Your task to perform on an android device: turn on priority inbox in the gmail app Image 0: 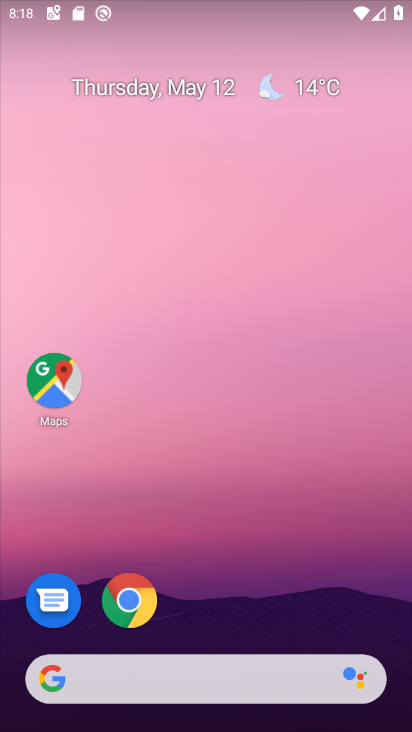
Step 0: drag from (332, 632) to (162, 60)
Your task to perform on an android device: turn on priority inbox in the gmail app Image 1: 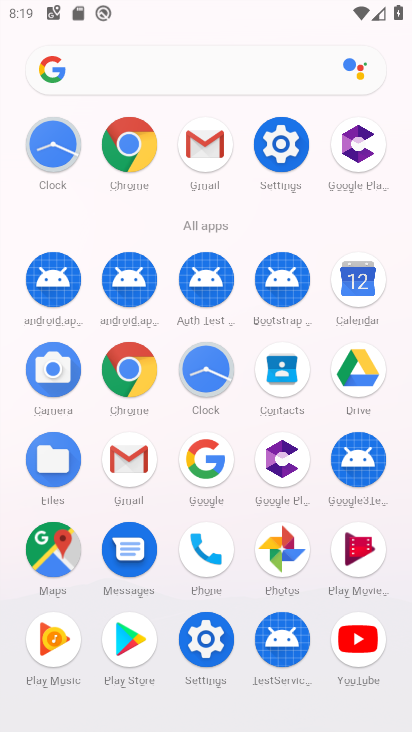
Step 1: click (138, 460)
Your task to perform on an android device: turn on priority inbox in the gmail app Image 2: 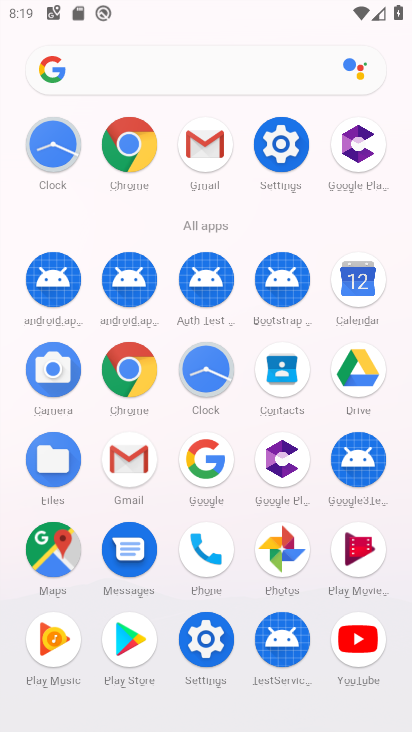
Step 2: click (138, 460)
Your task to perform on an android device: turn on priority inbox in the gmail app Image 3: 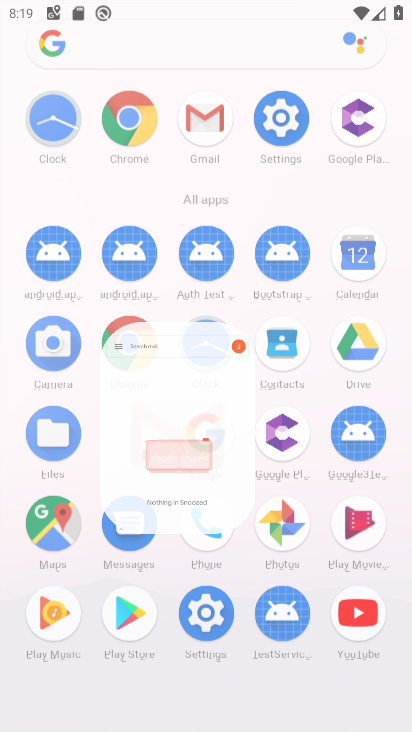
Step 3: click (138, 460)
Your task to perform on an android device: turn on priority inbox in the gmail app Image 4: 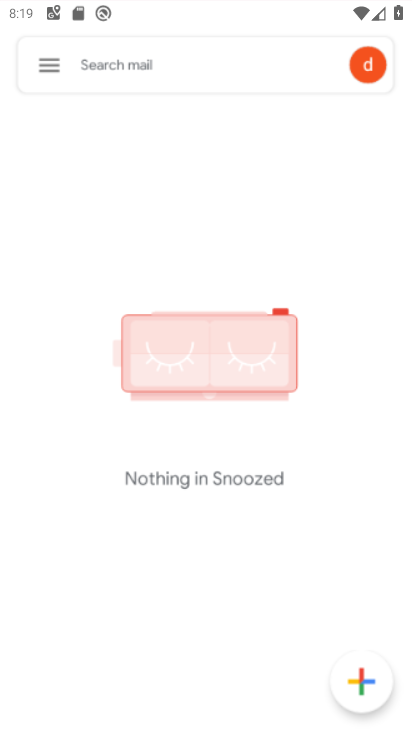
Step 4: click (138, 460)
Your task to perform on an android device: turn on priority inbox in the gmail app Image 5: 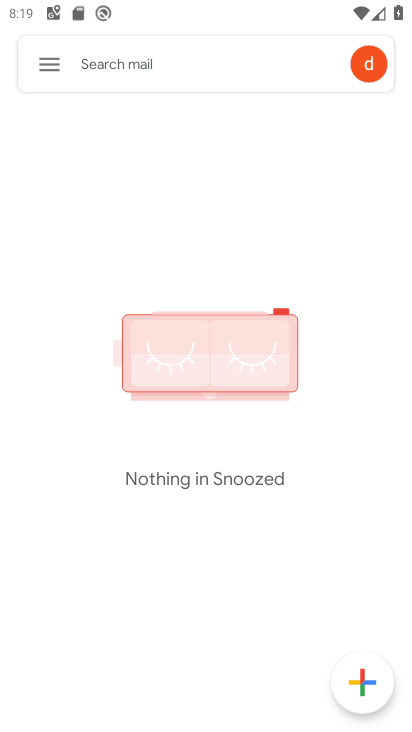
Step 5: press home button
Your task to perform on an android device: turn on priority inbox in the gmail app Image 6: 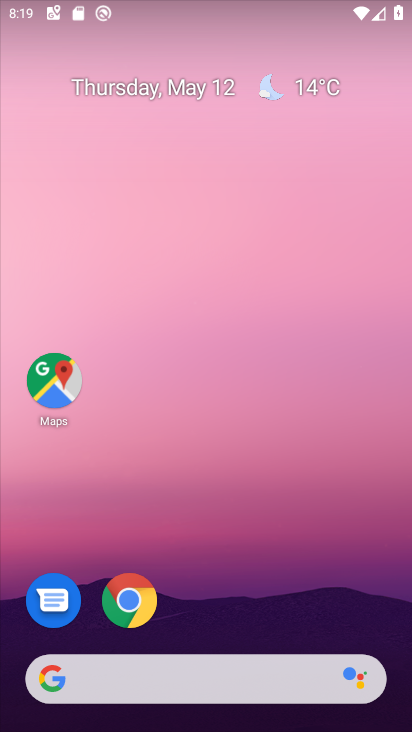
Step 6: drag from (284, 663) to (122, 209)
Your task to perform on an android device: turn on priority inbox in the gmail app Image 7: 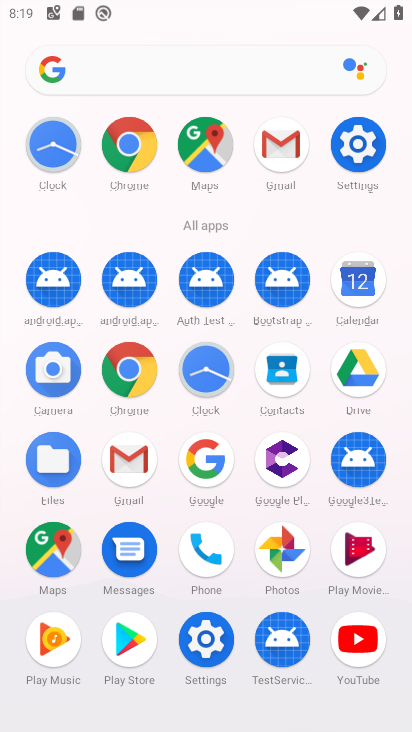
Step 7: click (275, 145)
Your task to perform on an android device: turn on priority inbox in the gmail app Image 8: 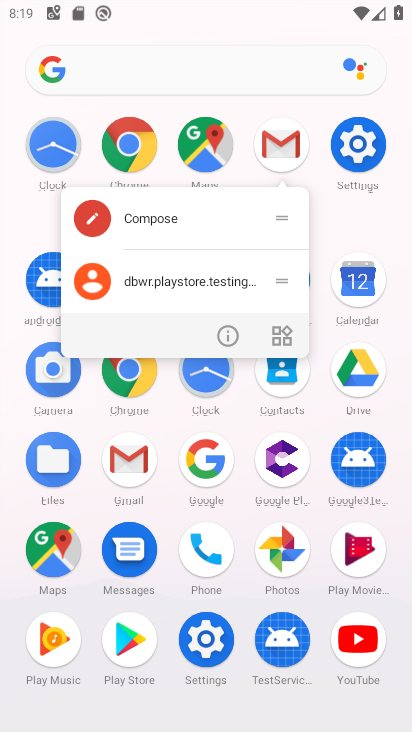
Step 8: click (282, 143)
Your task to perform on an android device: turn on priority inbox in the gmail app Image 9: 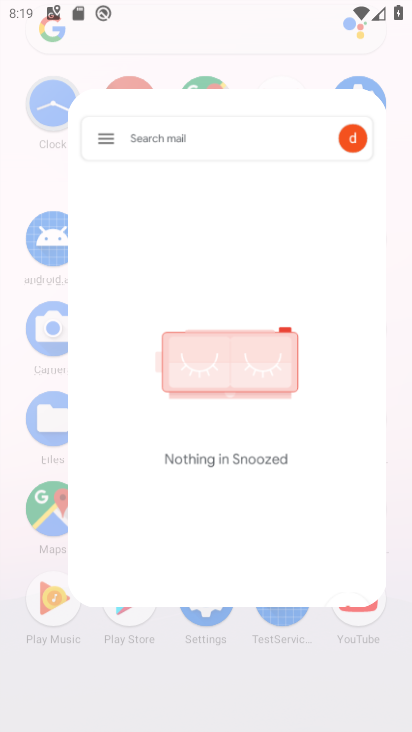
Step 9: click (279, 142)
Your task to perform on an android device: turn on priority inbox in the gmail app Image 10: 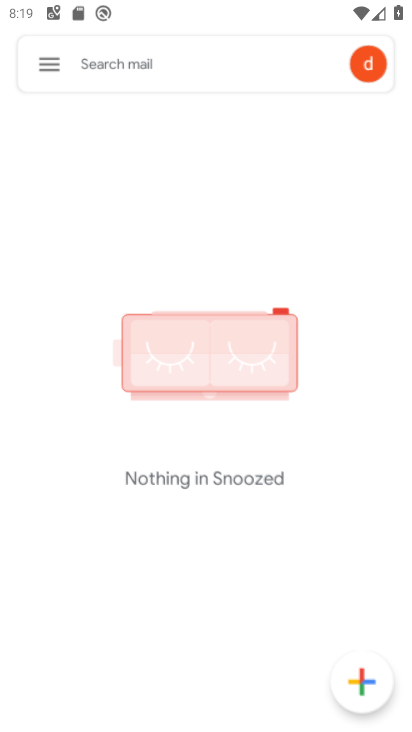
Step 10: click (279, 142)
Your task to perform on an android device: turn on priority inbox in the gmail app Image 11: 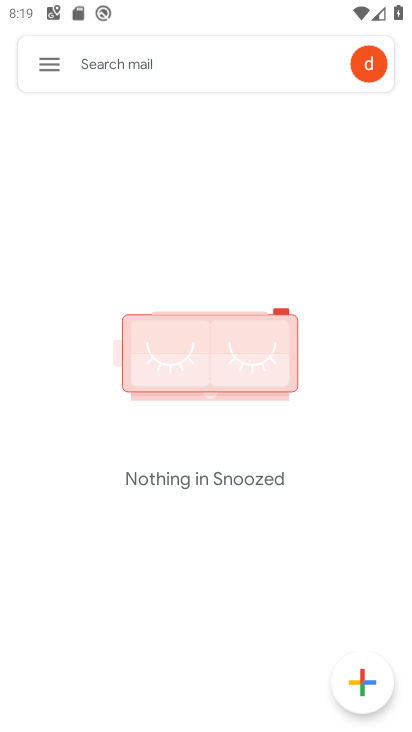
Step 11: click (279, 142)
Your task to perform on an android device: turn on priority inbox in the gmail app Image 12: 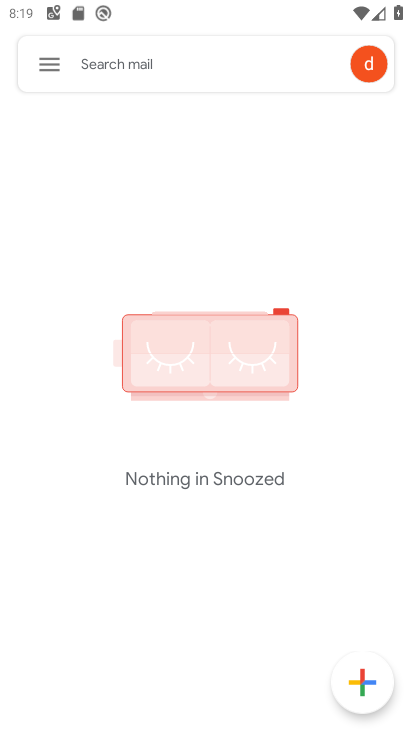
Step 12: click (45, 67)
Your task to perform on an android device: turn on priority inbox in the gmail app Image 13: 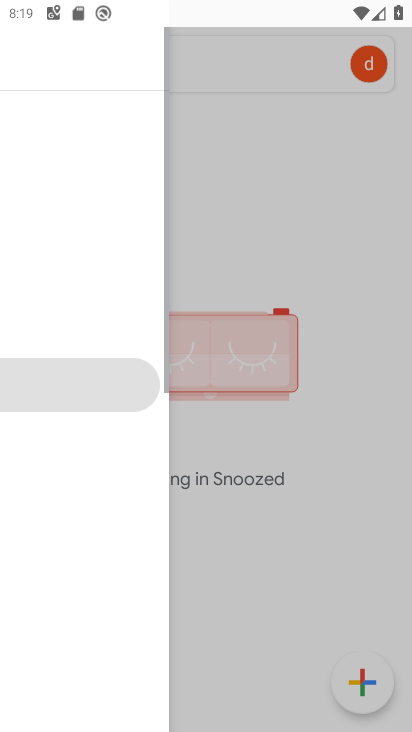
Step 13: click (50, 56)
Your task to perform on an android device: turn on priority inbox in the gmail app Image 14: 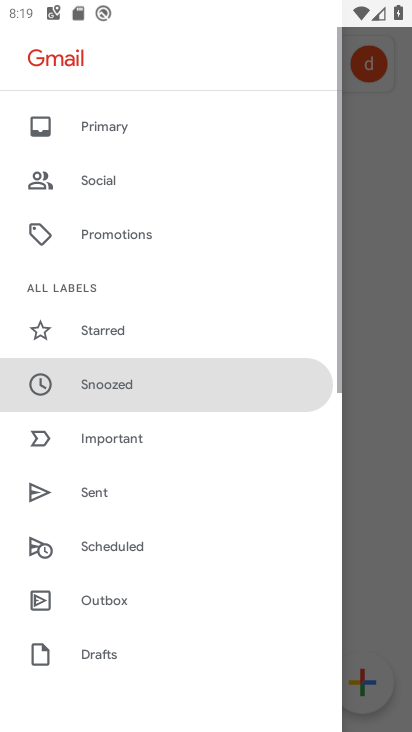
Step 14: drag from (108, 577) to (130, 121)
Your task to perform on an android device: turn on priority inbox in the gmail app Image 15: 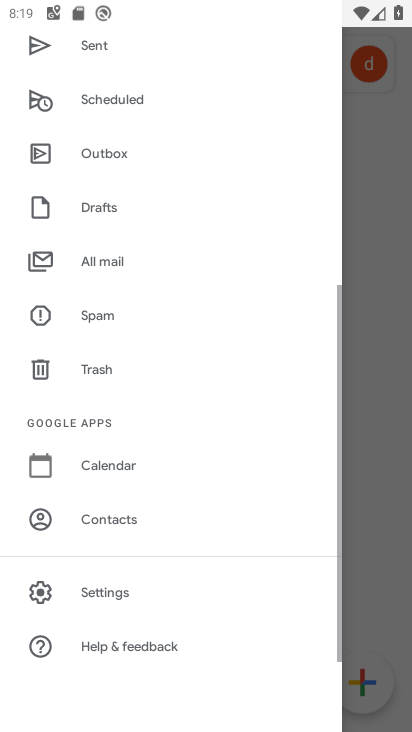
Step 15: drag from (143, 183) to (143, 48)
Your task to perform on an android device: turn on priority inbox in the gmail app Image 16: 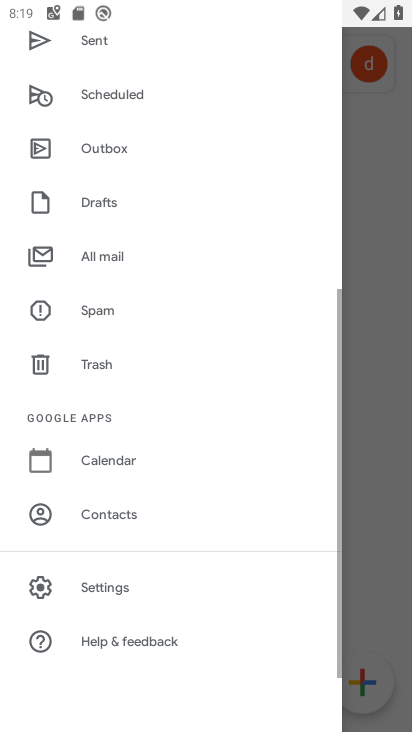
Step 16: click (84, 576)
Your task to perform on an android device: turn on priority inbox in the gmail app Image 17: 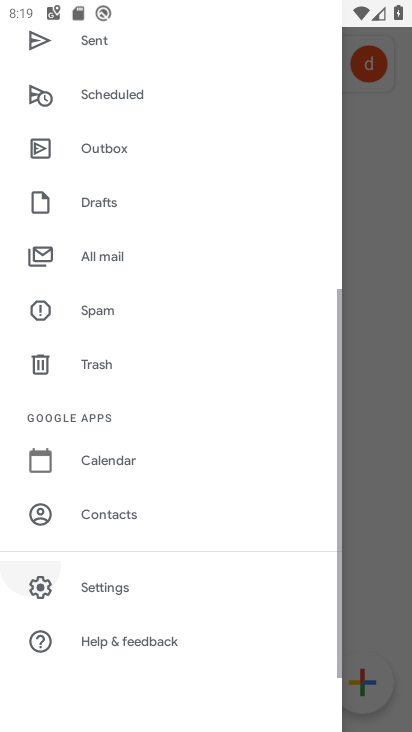
Step 17: click (87, 582)
Your task to perform on an android device: turn on priority inbox in the gmail app Image 18: 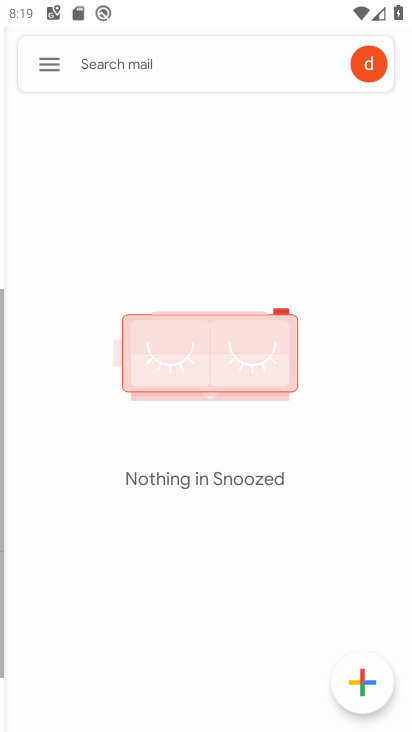
Step 18: click (87, 582)
Your task to perform on an android device: turn on priority inbox in the gmail app Image 19: 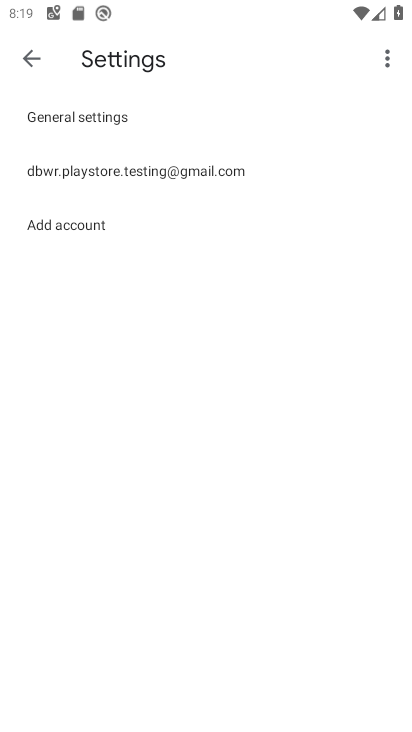
Step 19: click (102, 174)
Your task to perform on an android device: turn on priority inbox in the gmail app Image 20: 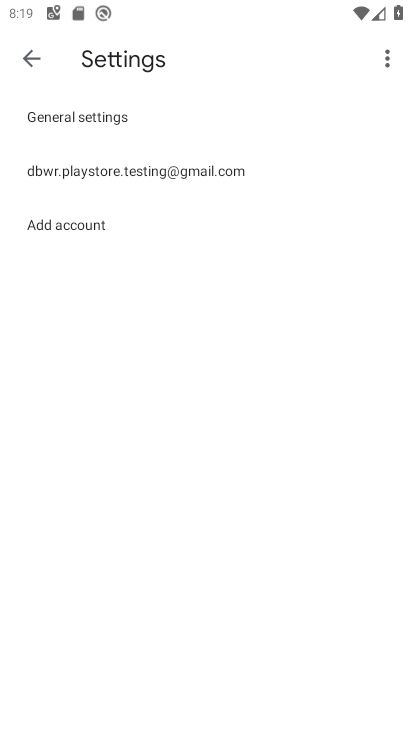
Step 20: click (103, 175)
Your task to perform on an android device: turn on priority inbox in the gmail app Image 21: 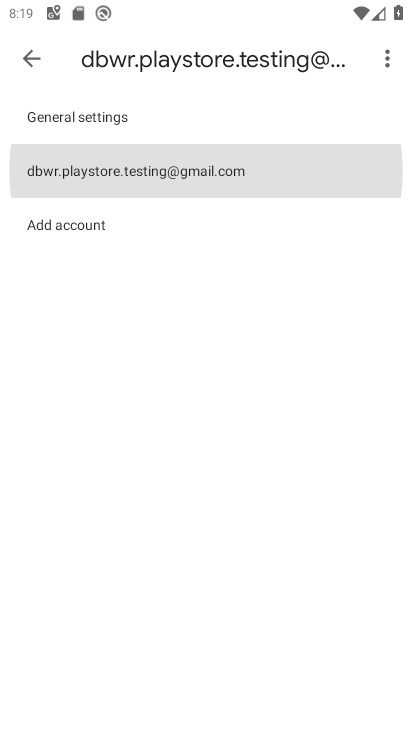
Step 21: click (103, 175)
Your task to perform on an android device: turn on priority inbox in the gmail app Image 22: 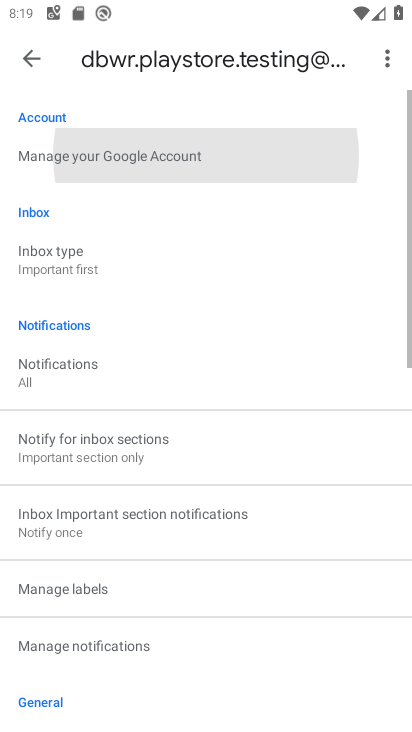
Step 22: click (103, 175)
Your task to perform on an android device: turn on priority inbox in the gmail app Image 23: 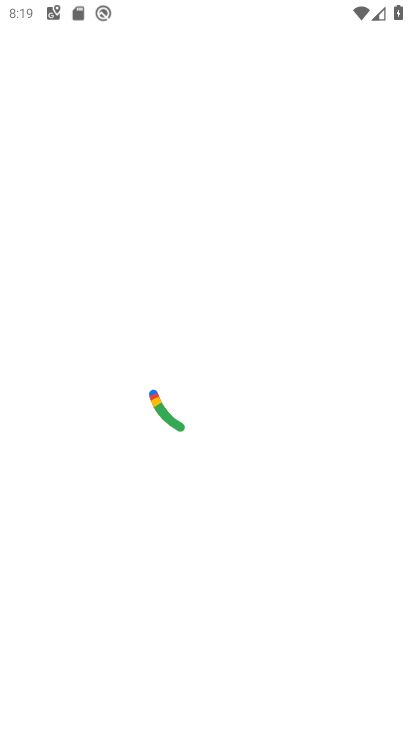
Step 23: press back button
Your task to perform on an android device: turn on priority inbox in the gmail app Image 24: 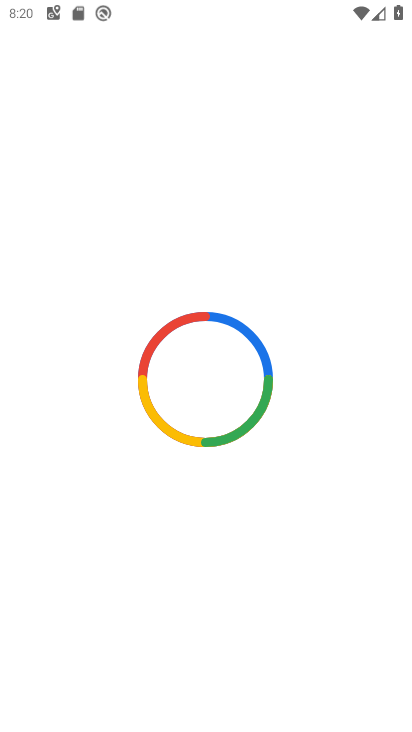
Step 24: press home button
Your task to perform on an android device: turn on priority inbox in the gmail app Image 25: 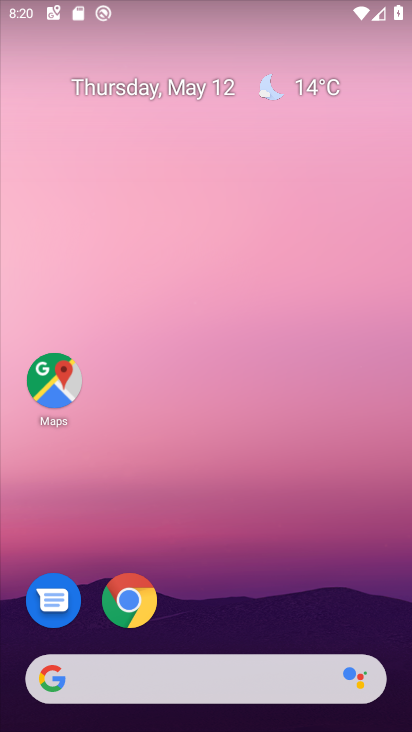
Step 25: drag from (216, 479) to (142, 35)
Your task to perform on an android device: turn on priority inbox in the gmail app Image 26: 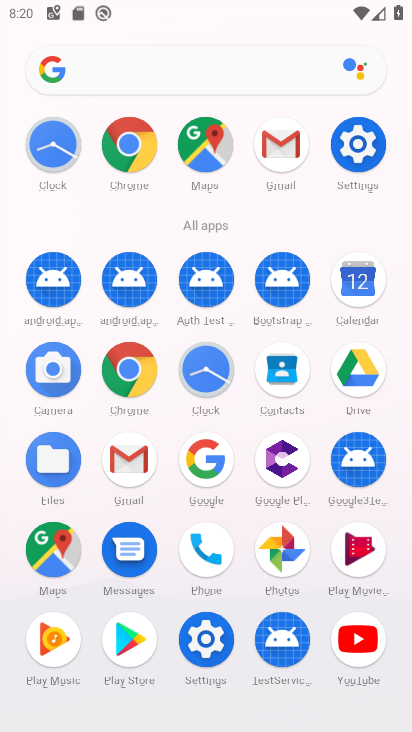
Step 26: click (273, 155)
Your task to perform on an android device: turn on priority inbox in the gmail app Image 27: 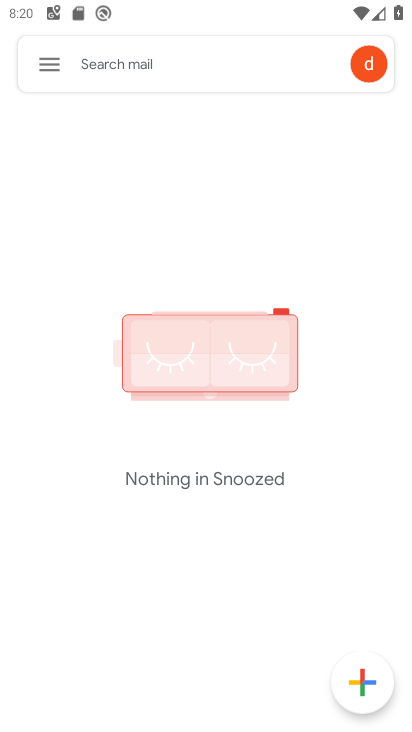
Step 27: click (50, 65)
Your task to perform on an android device: turn on priority inbox in the gmail app Image 28: 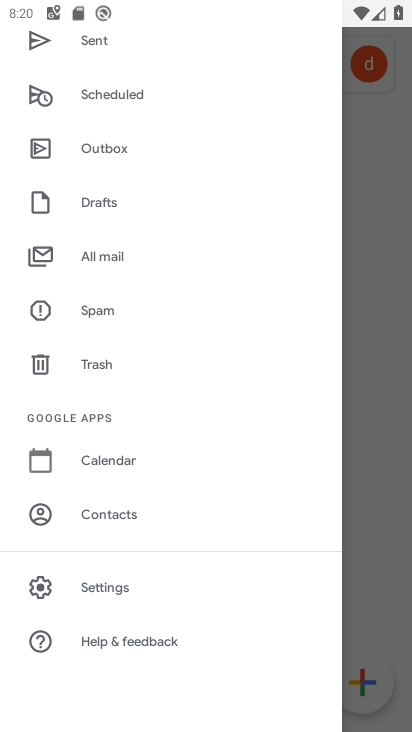
Step 28: click (108, 587)
Your task to perform on an android device: turn on priority inbox in the gmail app Image 29: 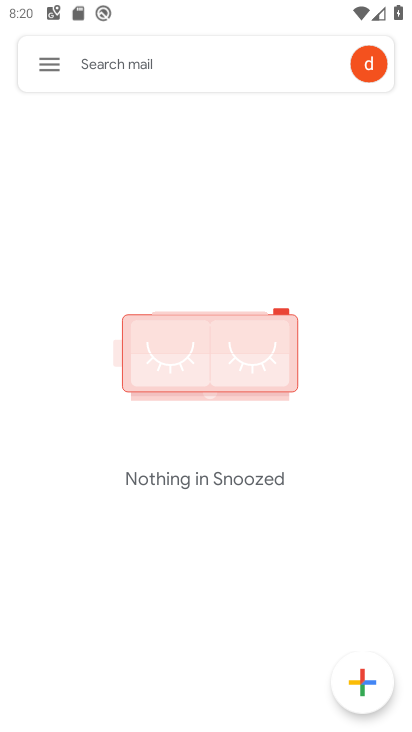
Step 29: click (108, 585)
Your task to perform on an android device: turn on priority inbox in the gmail app Image 30: 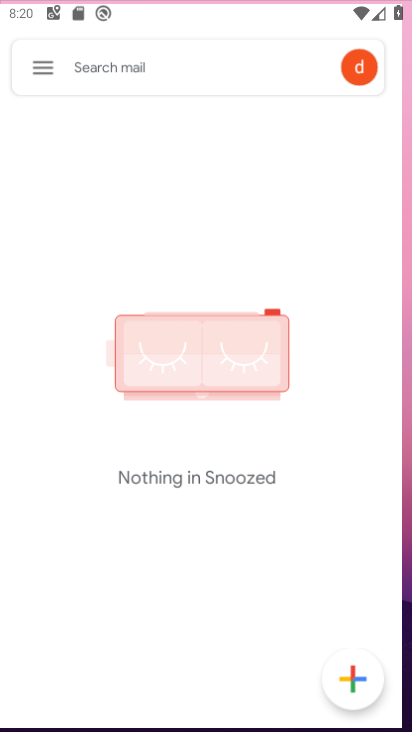
Step 30: click (109, 584)
Your task to perform on an android device: turn on priority inbox in the gmail app Image 31: 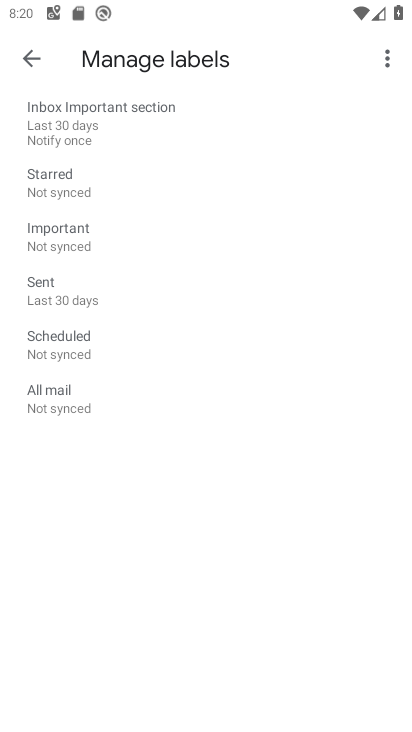
Step 31: click (27, 52)
Your task to perform on an android device: turn on priority inbox in the gmail app Image 32: 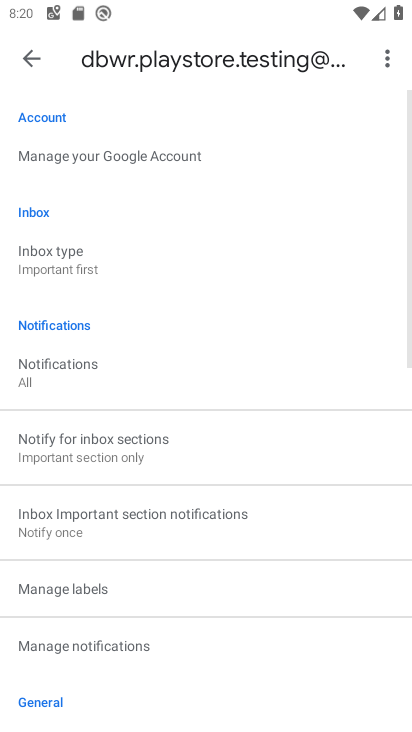
Step 32: click (56, 256)
Your task to perform on an android device: turn on priority inbox in the gmail app Image 33: 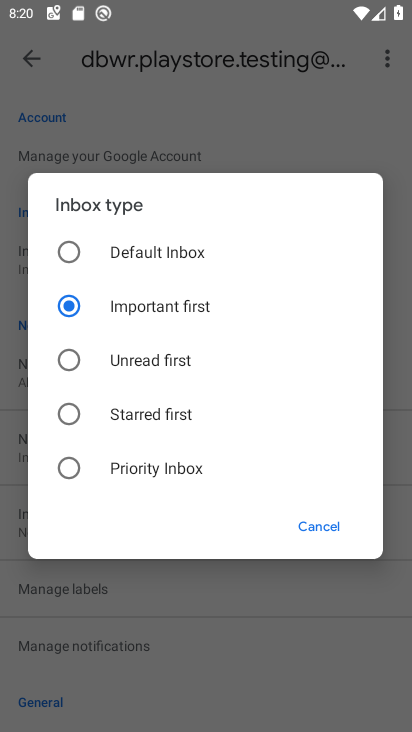
Step 33: click (69, 462)
Your task to perform on an android device: turn on priority inbox in the gmail app Image 34: 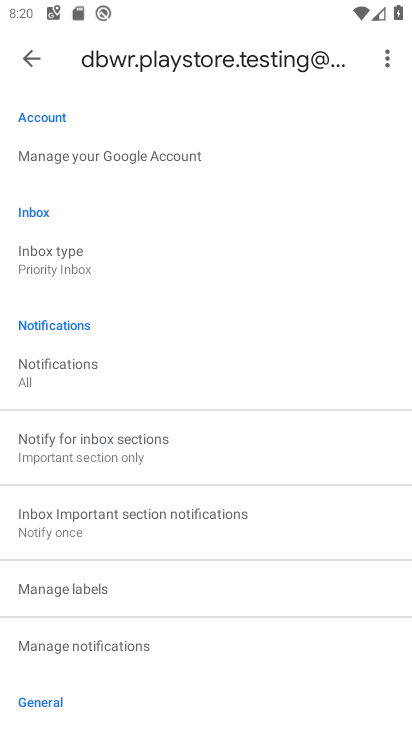
Step 34: task complete